Your task to perform on an android device: Search for "The Dispatcher" by John Scalzi on Goodreads Image 0: 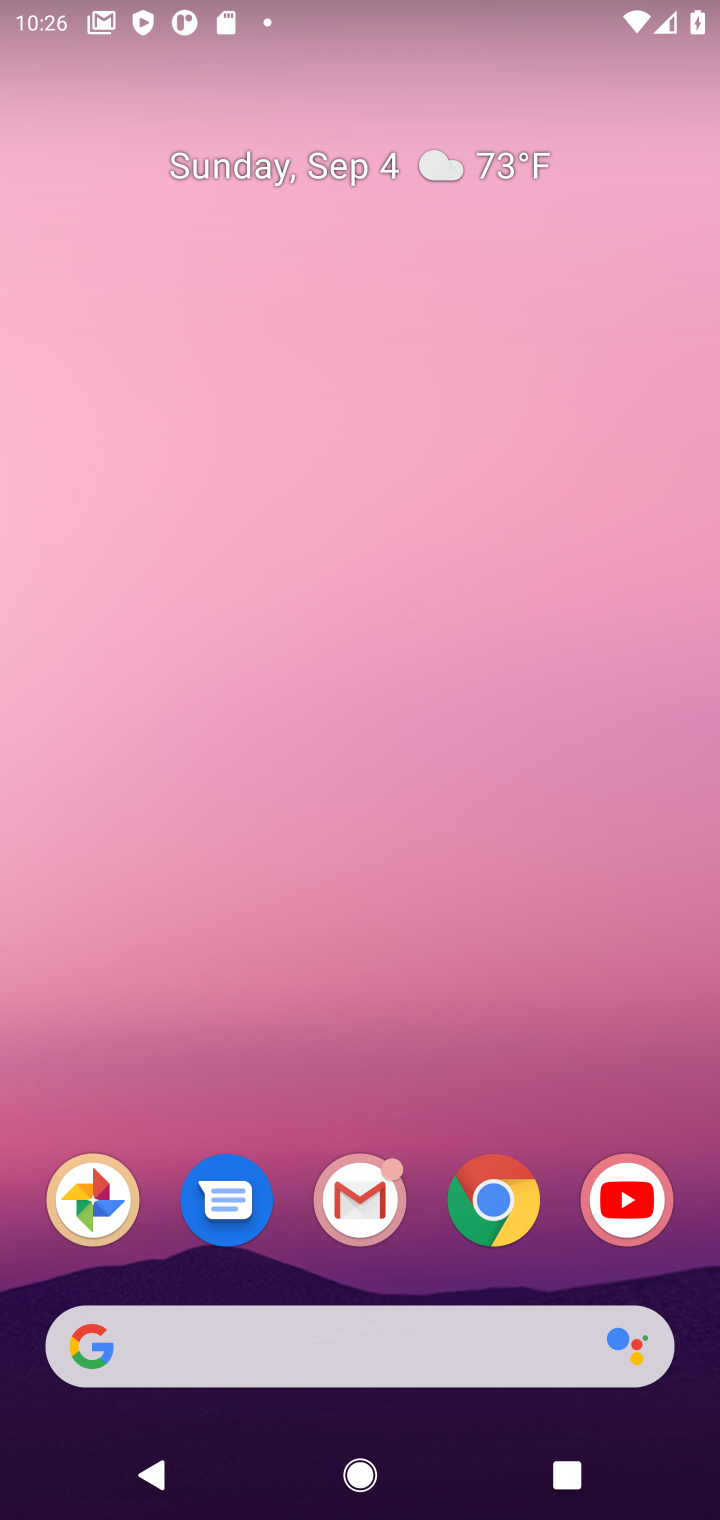
Step 0: drag from (539, 624) to (596, 477)
Your task to perform on an android device: Search for "The Dispatcher" by John Scalzi on Goodreads Image 1: 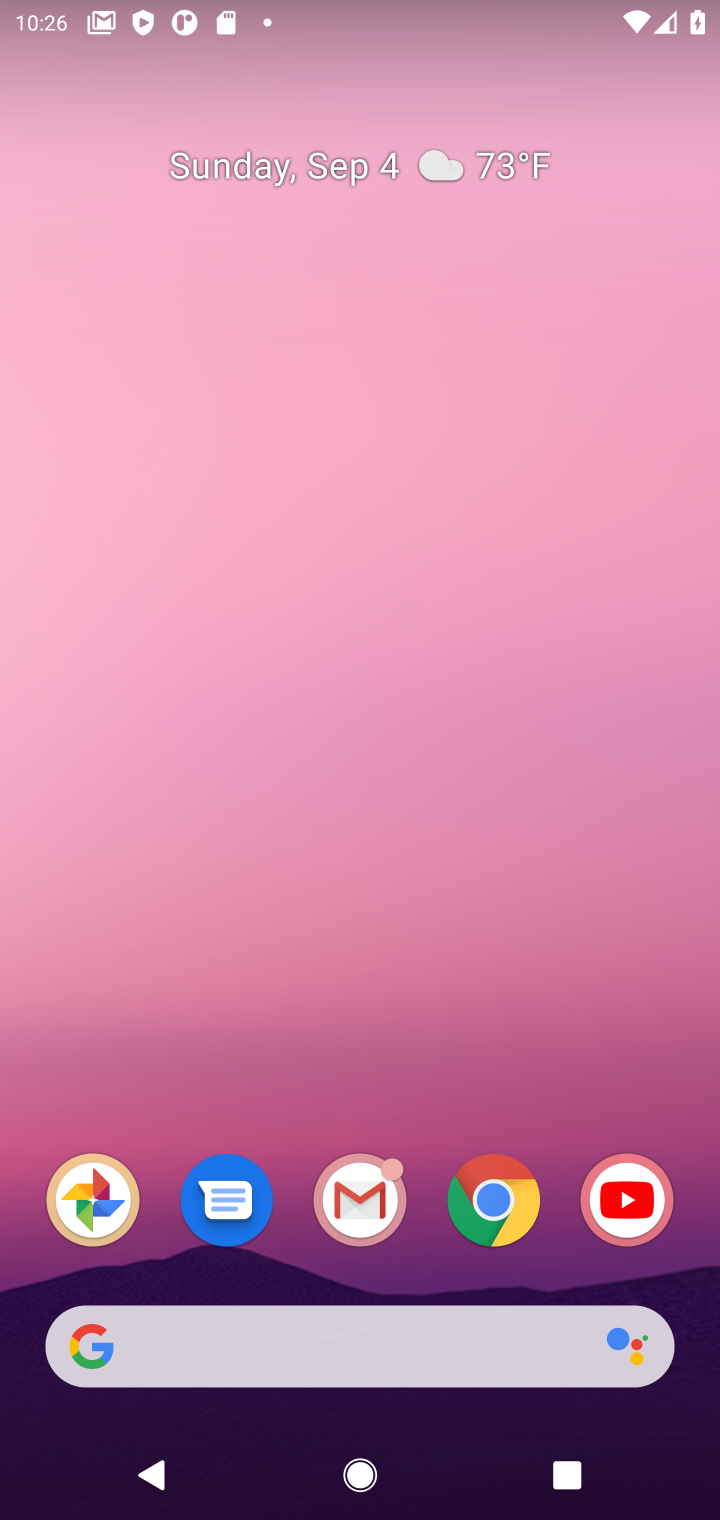
Step 1: click (490, 1211)
Your task to perform on an android device: Search for "The Dispatcher" by John Scalzi on Goodreads Image 2: 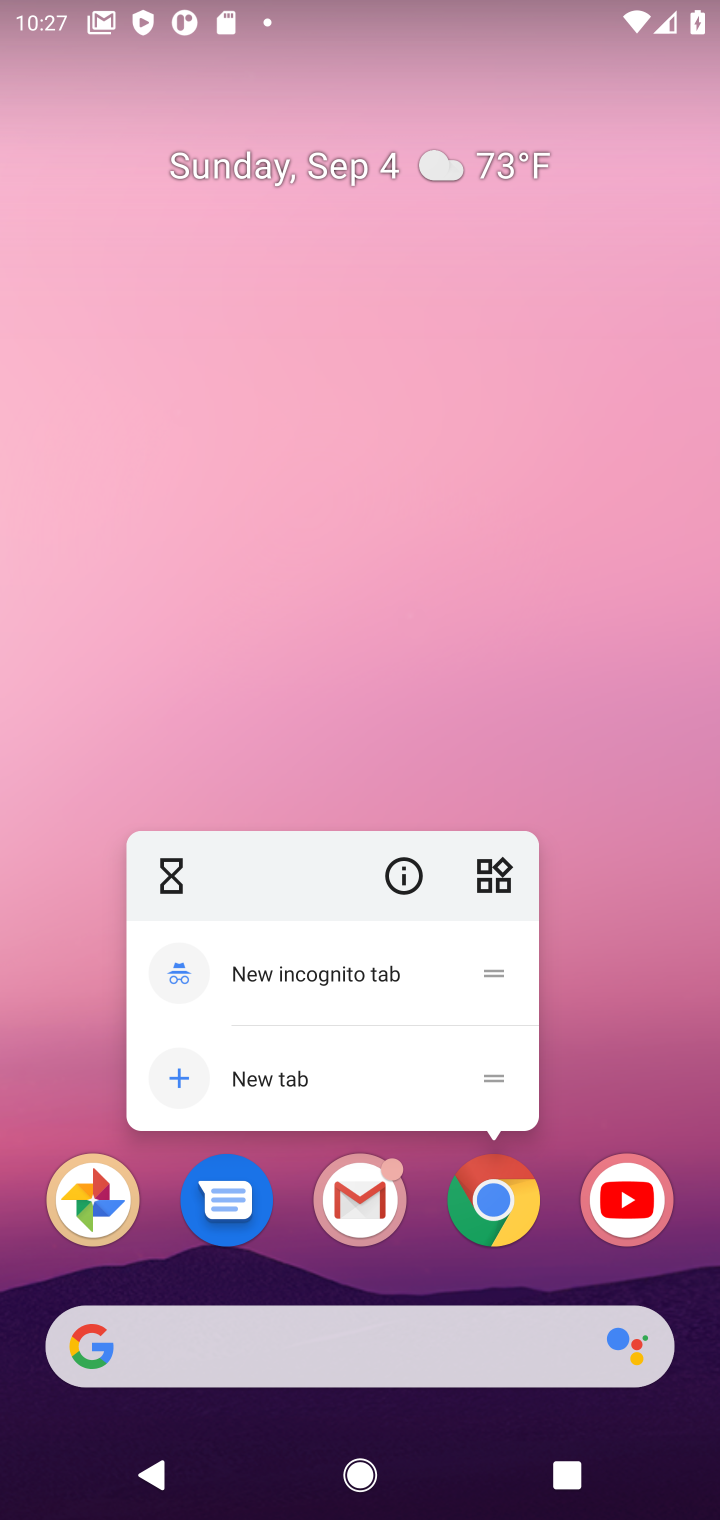
Step 2: click (518, 1207)
Your task to perform on an android device: Search for "The Dispatcher" by John Scalzi on Goodreads Image 3: 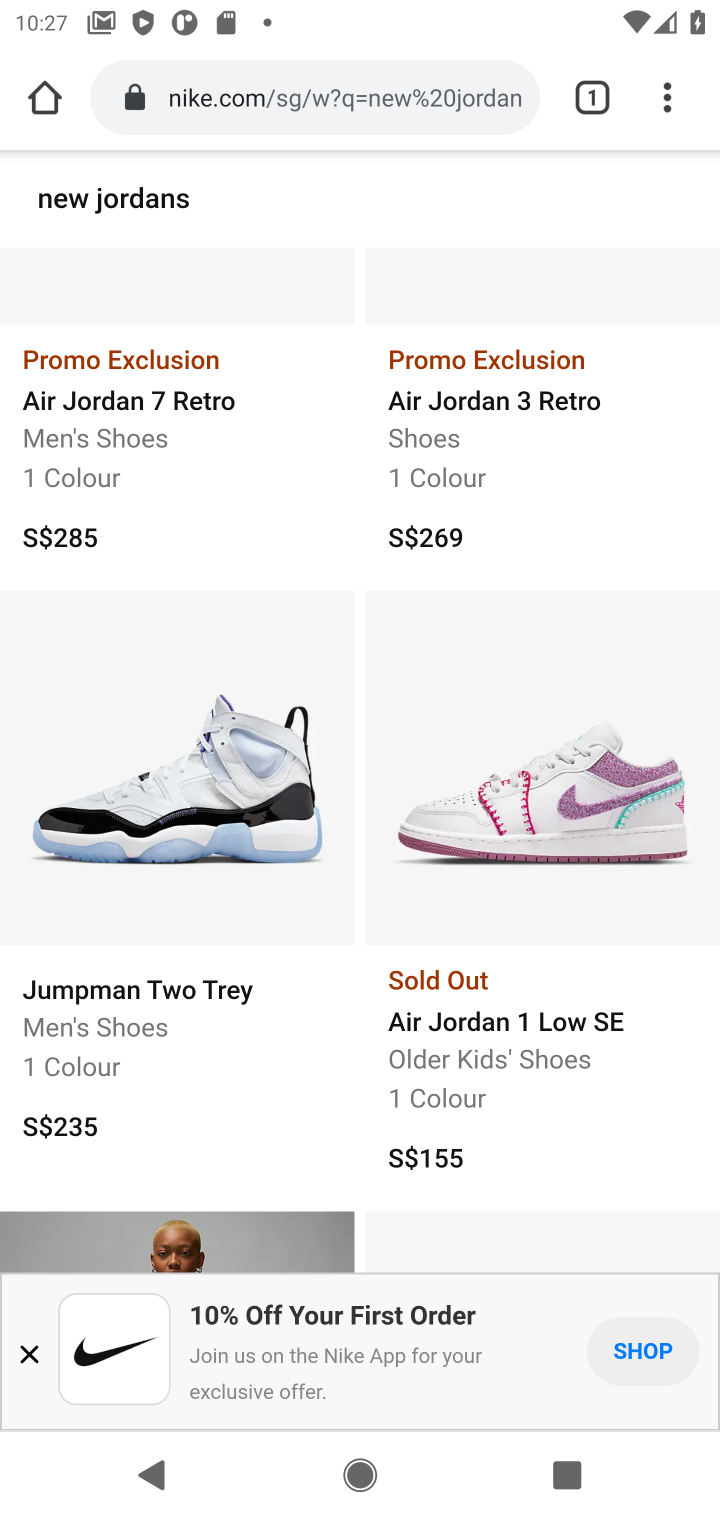
Step 3: drag from (451, 244) to (467, 585)
Your task to perform on an android device: Search for "The Dispatcher" by John Scalzi on Goodreads Image 4: 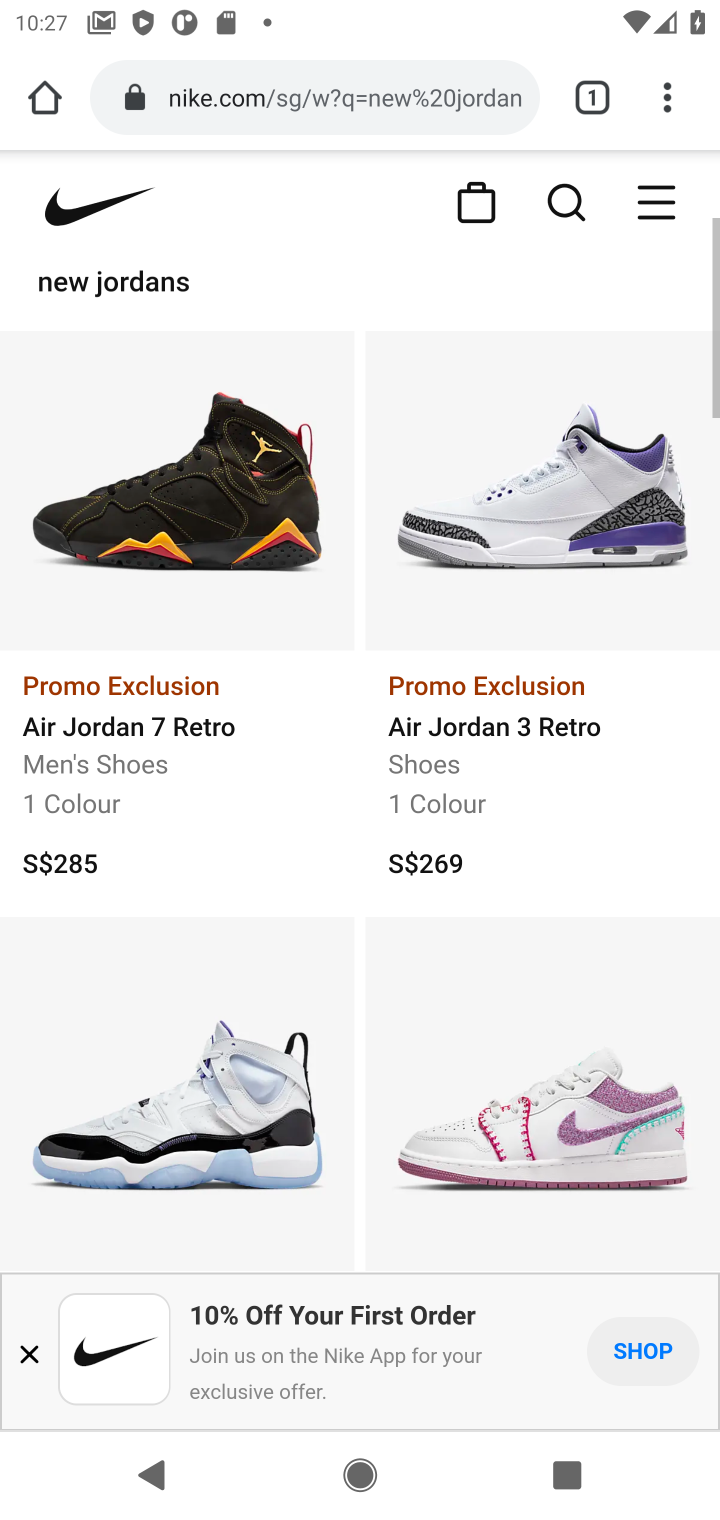
Step 4: drag from (508, 316) to (487, 652)
Your task to perform on an android device: Search for "The Dispatcher" by John Scalzi on Goodreads Image 5: 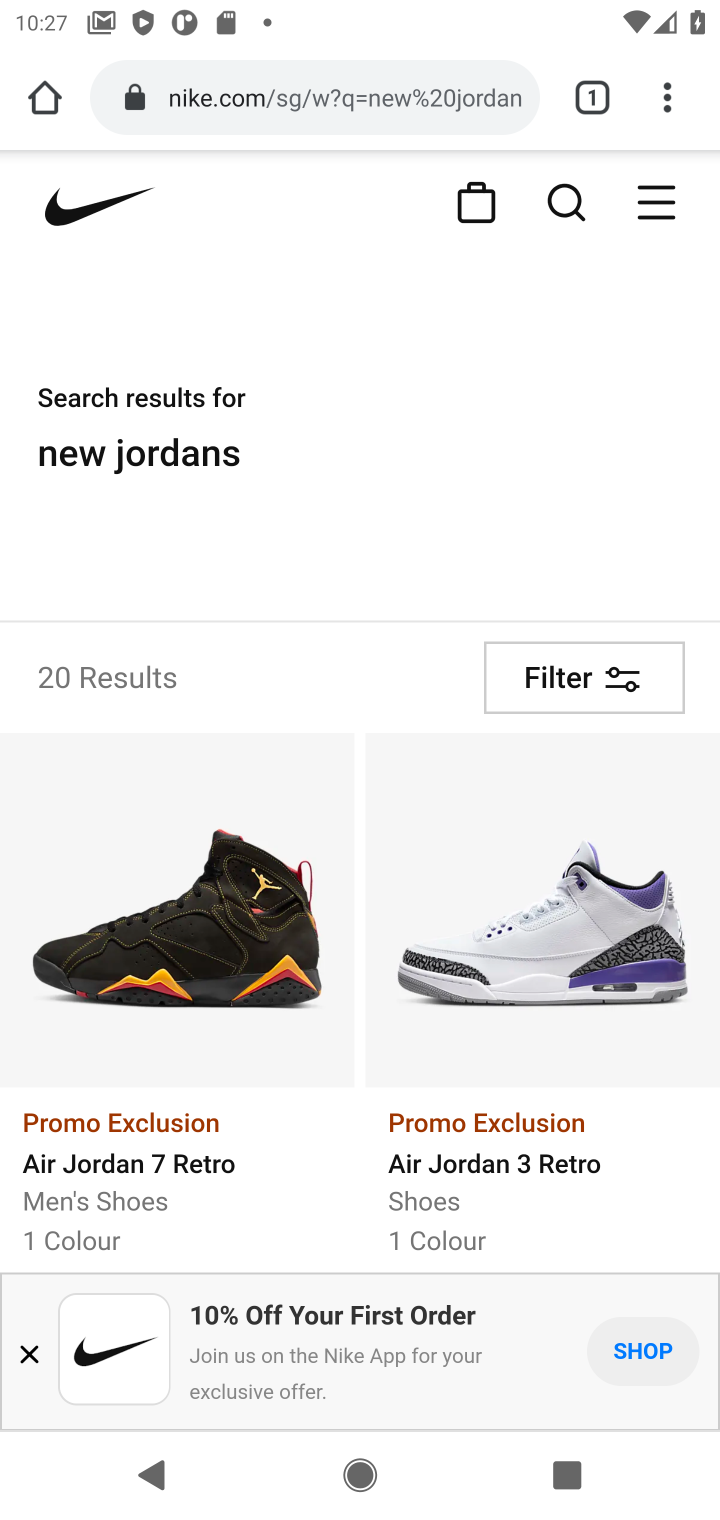
Step 5: click (452, 92)
Your task to perform on an android device: Search for "The Dispatcher" by John Scalzi on Goodreads Image 6: 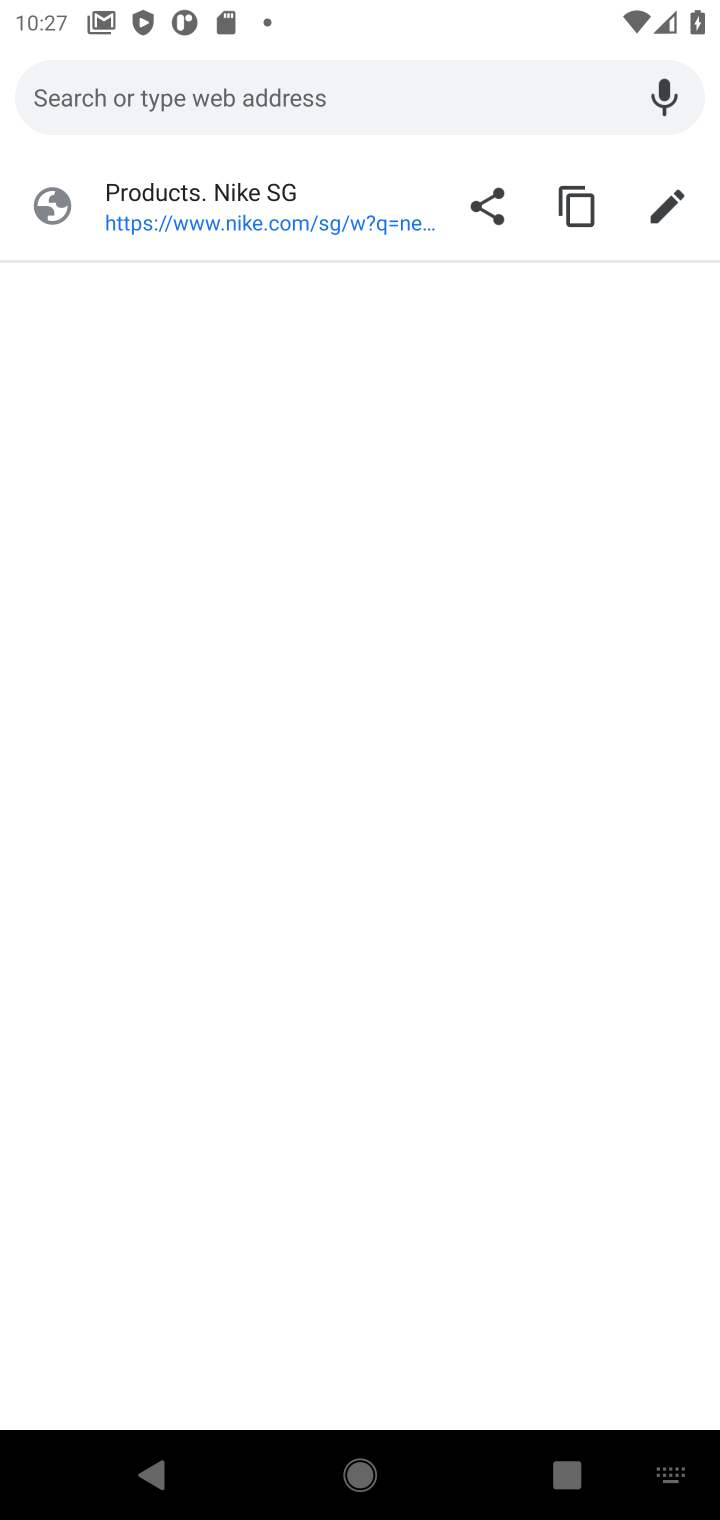
Step 6: type "goodreads"
Your task to perform on an android device: Search for "The Dispatcher" by John Scalzi on Goodreads Image 7: 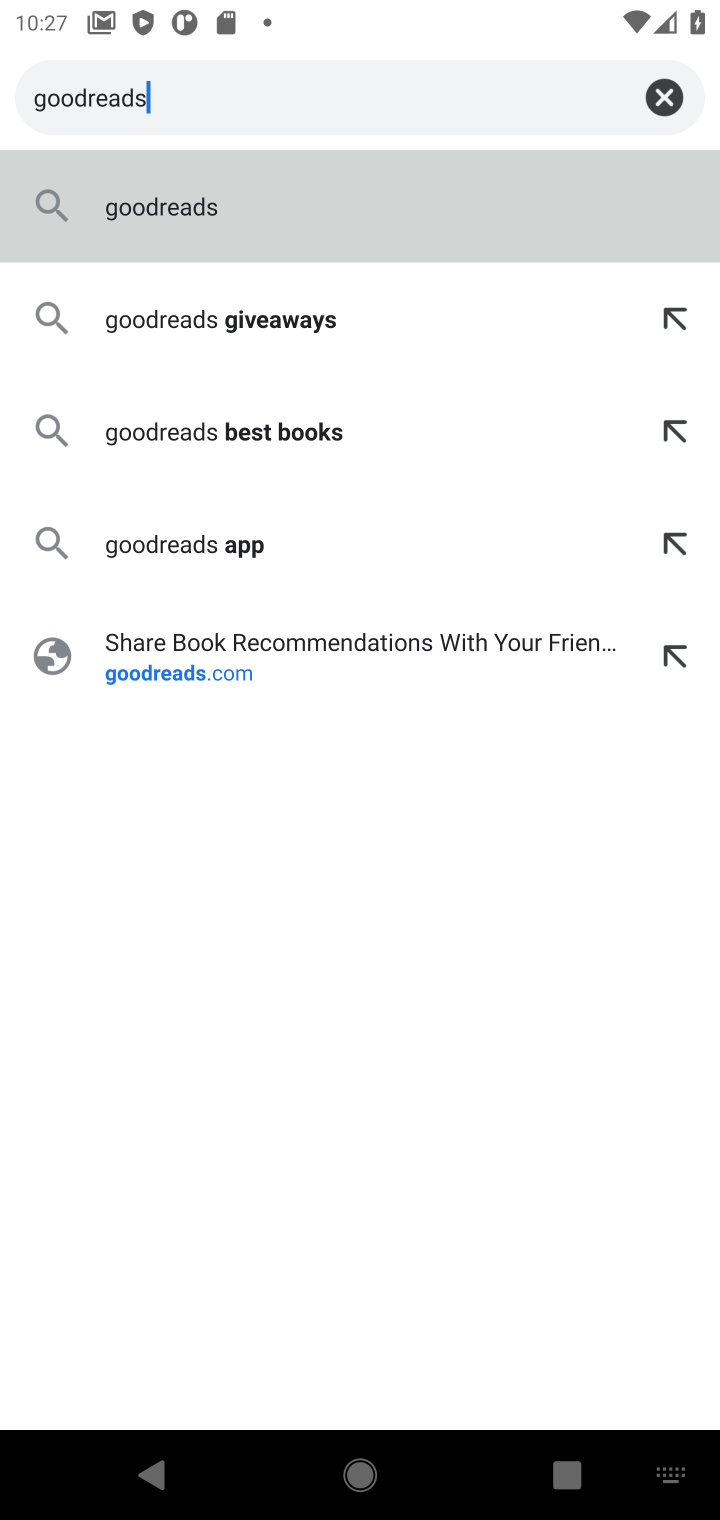
Step 7: click (348, 223)
Your task to perform on an android device: Search for "The Dispatcher" by John Scalzi on Goodreads Image 8: 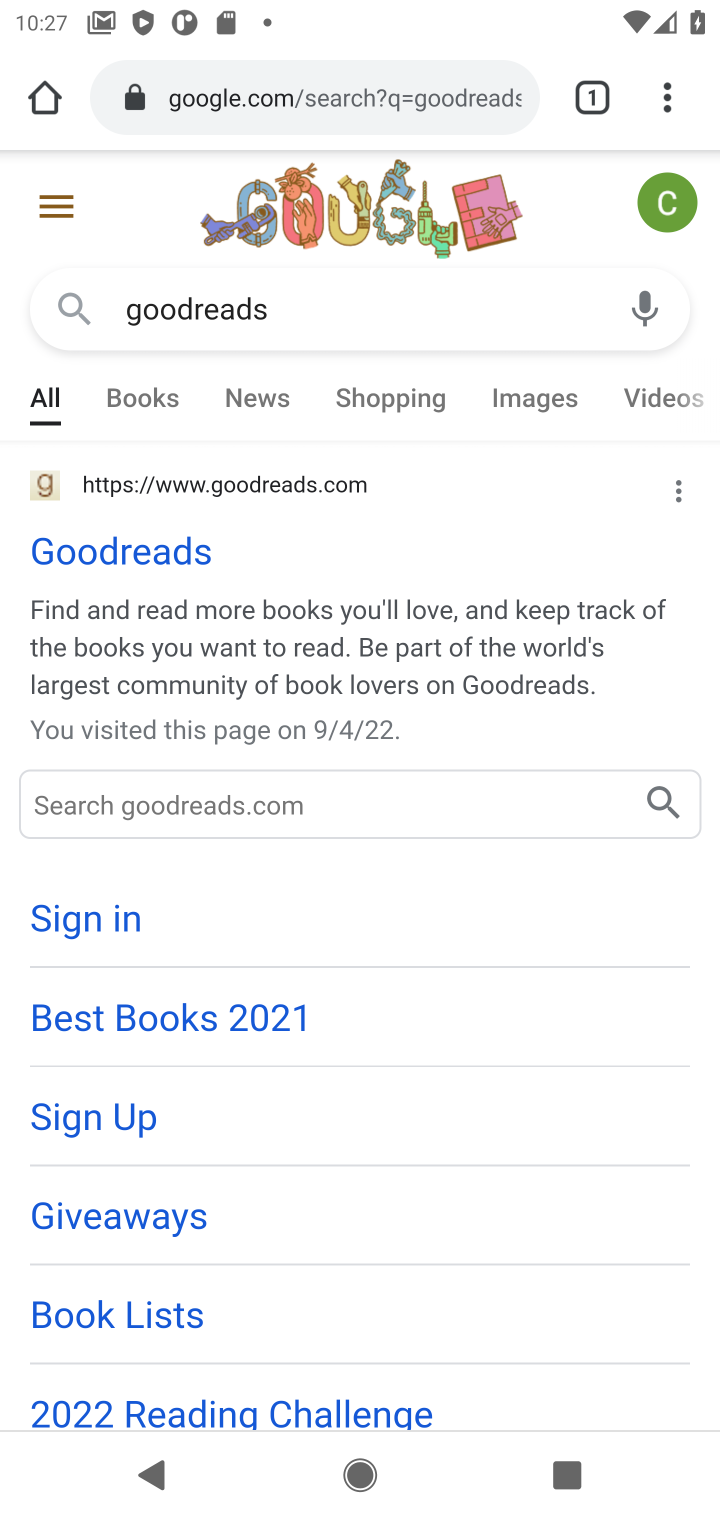
Step 8: click (120, 560)
Your task to perform on an android device: Search for "The Dispatcher" by John Scalzi on Goodreads Image 9: 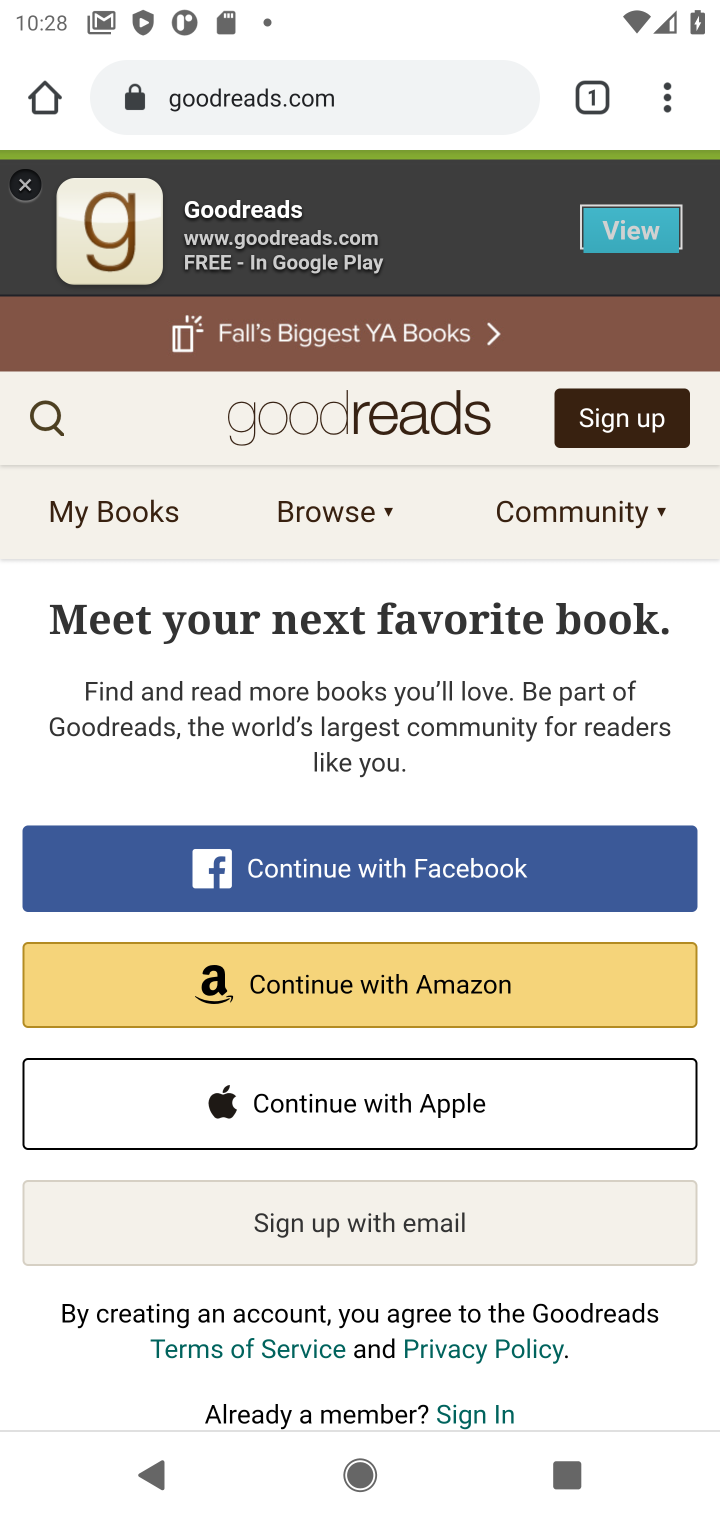
Step 9: click (48, 425)
Your task to perform on an android device: Search for "The Dispatcher" by John Scalzi on Goodreads Image 10: 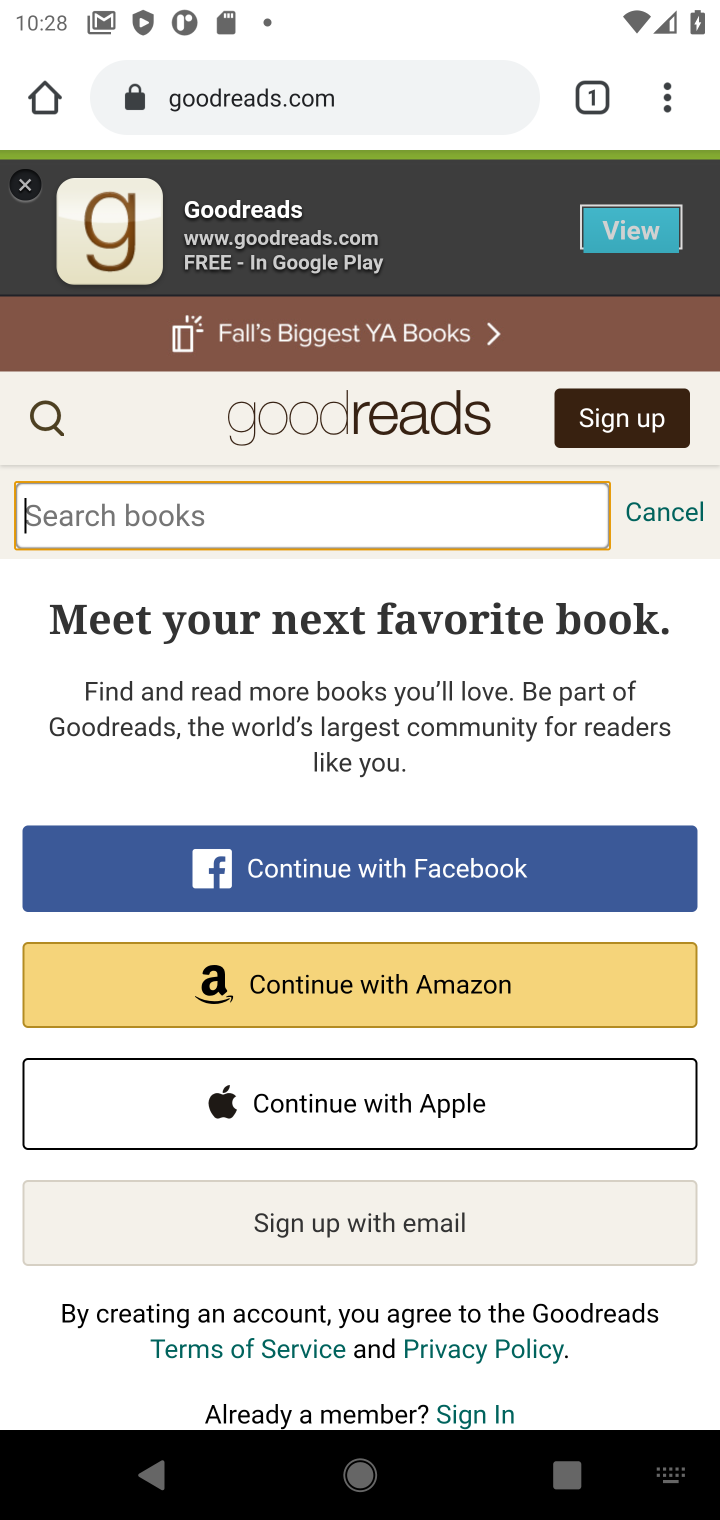
Step 10: type "The dispatcher"
Your task to perform on an android device: Search for "The Dispatcher" by John Scalzi on Goodreads Image 11: 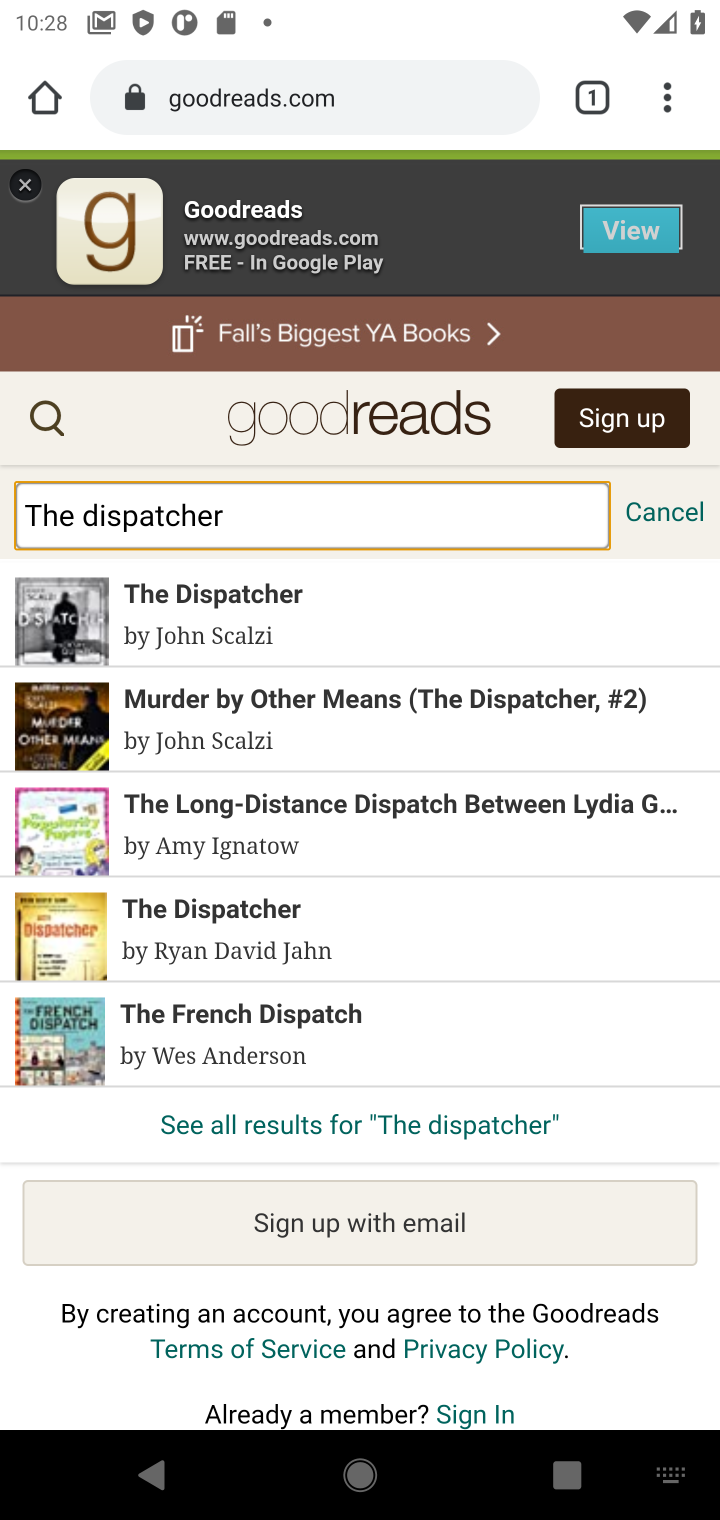
Step 11: click (359, 624)
Your task to perform on an android device: Search for "The Dispatcher" by John Scalzi on Goodreads Image 12: 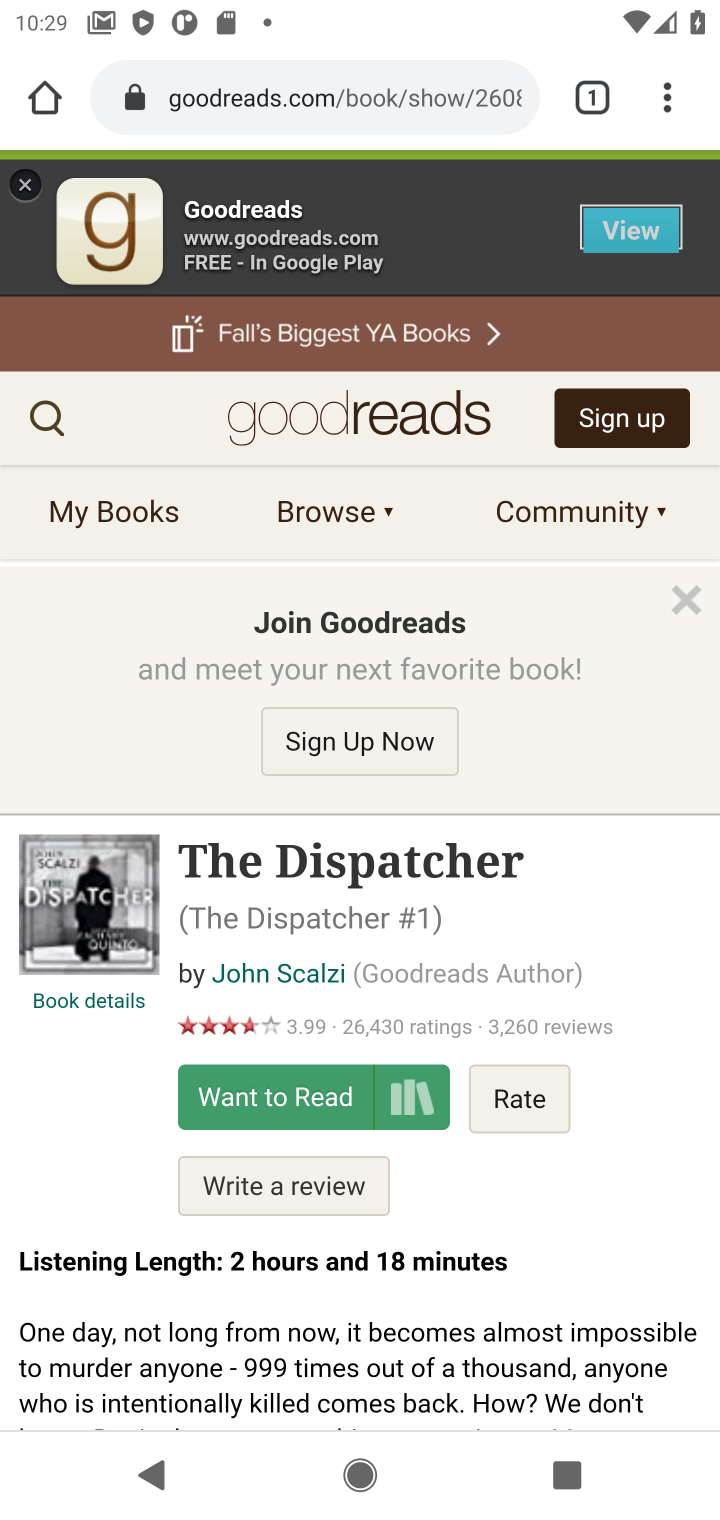
Step 12: task complete